Your task to perform on an android device: Open Yahoo.com Image 0: 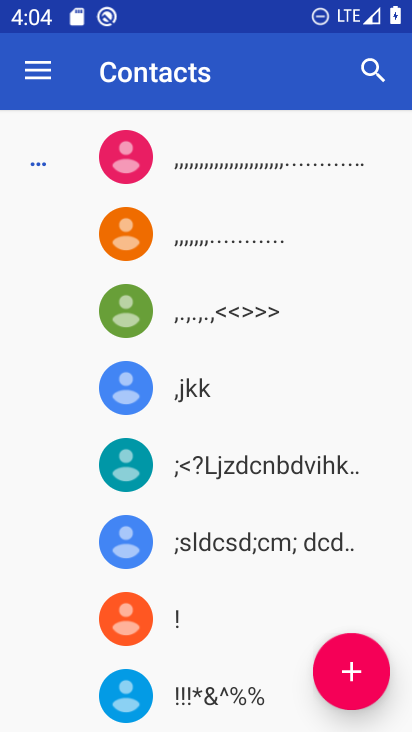
Step 0: press home button
Your task to perform on an android device: Open Yahoo.com Image 1: 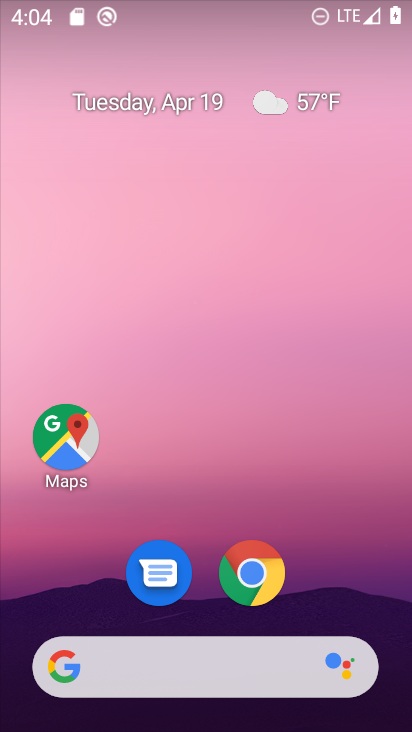
Step 1: click (261, 579)
Your task to perform on an android device: Open Yahoo.com Image 2: 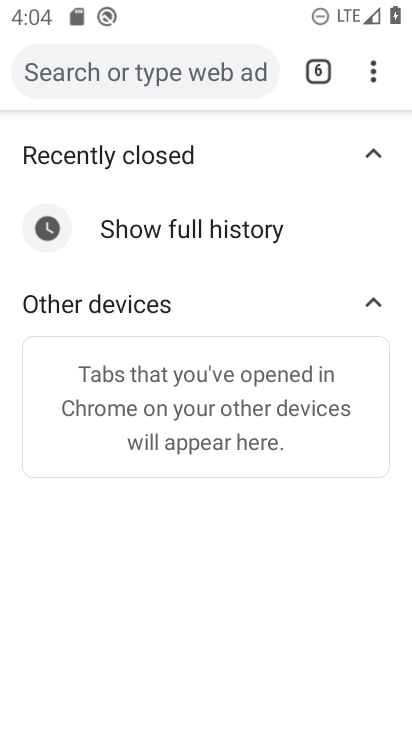
Step 2: click (374, 63)
Your task to perform on an android device: Open Yahoo.com Image 3: 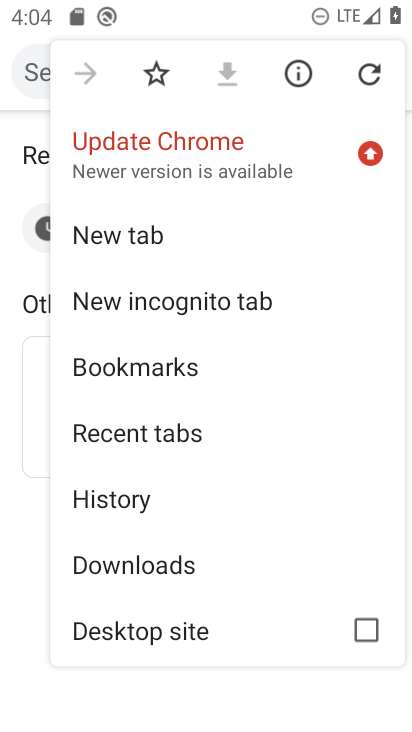
Step 3: click (128, 241)
Your task to perform on an android device: Open Yahoo.com Image 4: 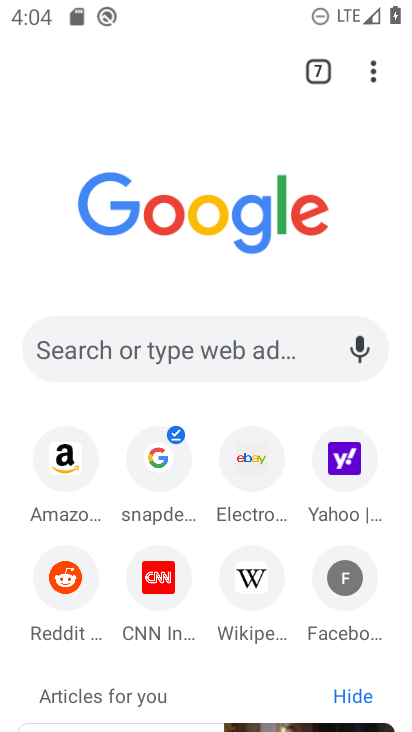
Step 4: click (345, 471)
Your task to perform on an android device: Open Yahoo.com Image 5: 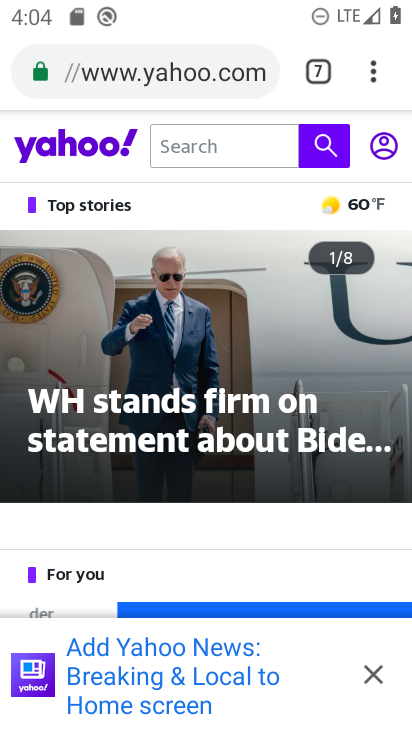
Step 5: task complete